Your task to perform on an android device: set an alarm Image 0: 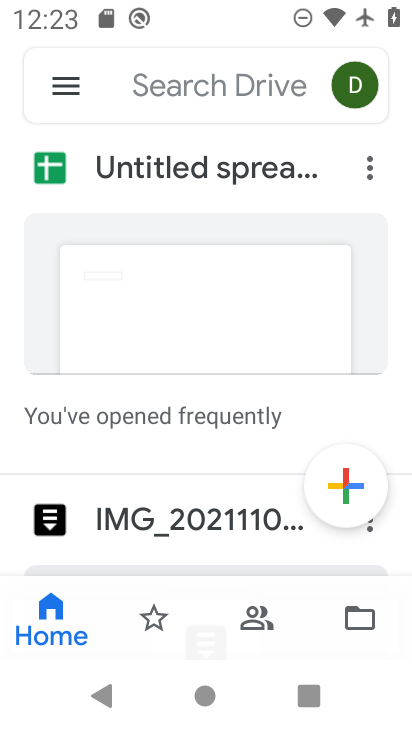
Step 0: press back button
Your task to perform on an android device: set an alarm Image 1: 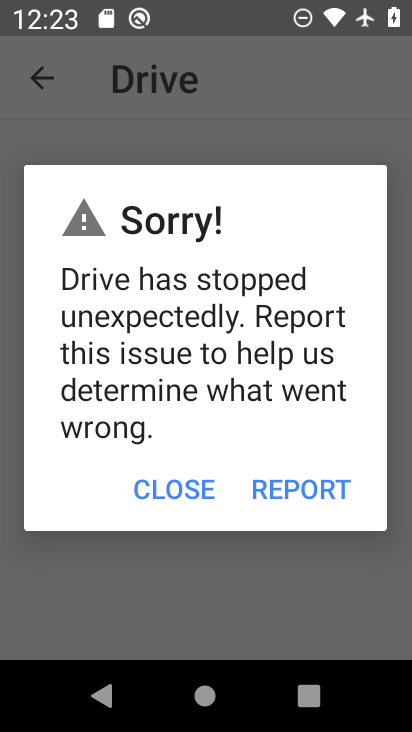
Step 1: press back button
Your task to perform on an android device: set an alarm Image 2: 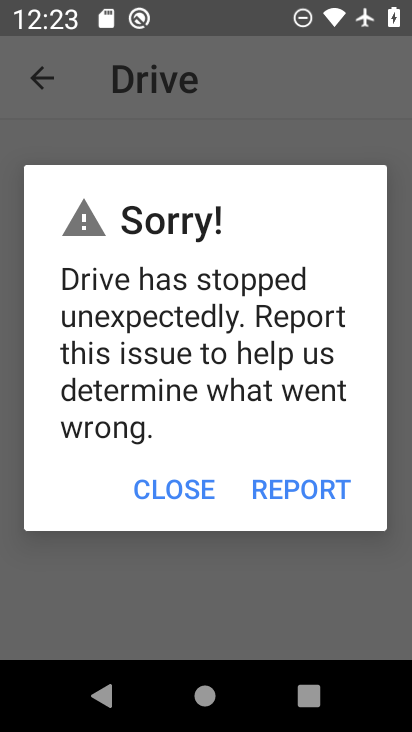
Step 2: press back button
Your task to perform on an android device: set an alarm Image 3: 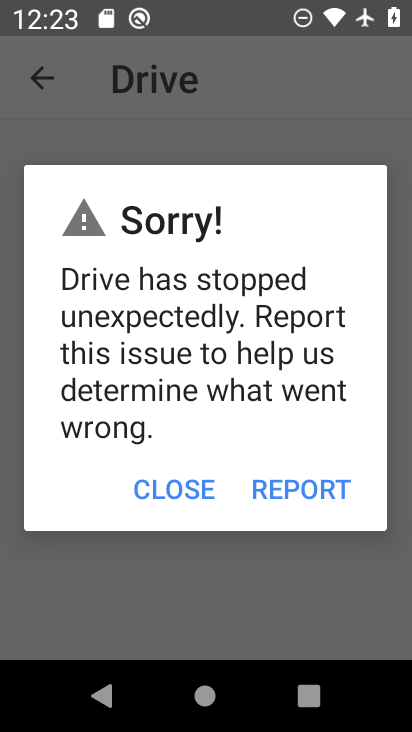
Step 3: press home button
Your task to perform on an android device: set an alarm Image 4: 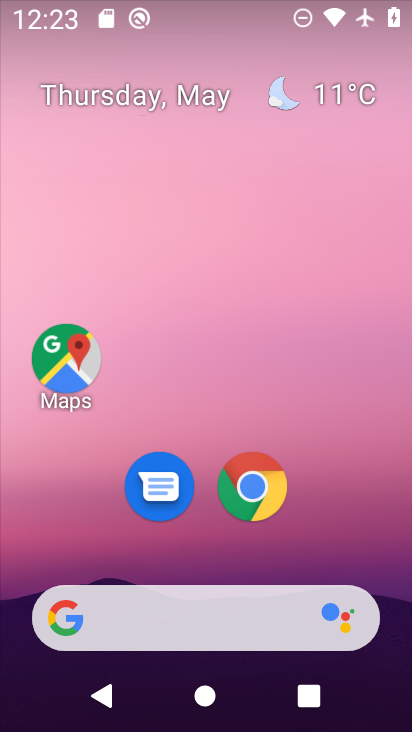
Step 4: drag from (320, 502) to (257, 78)
Your task to perform on an android device: set an alarm Image 5: 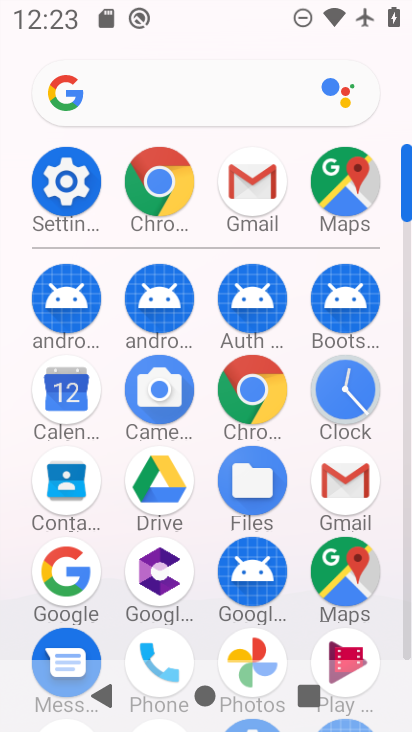
Step 5: click (347, 387)
Your task to perform on an android device: set an alarm Image 6: 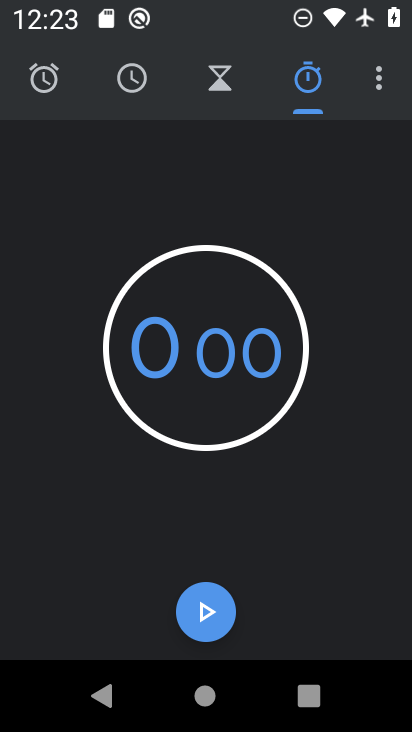
Step 6: click (51, 82)
Your task to perform on an android device: set an alarm Image 7: 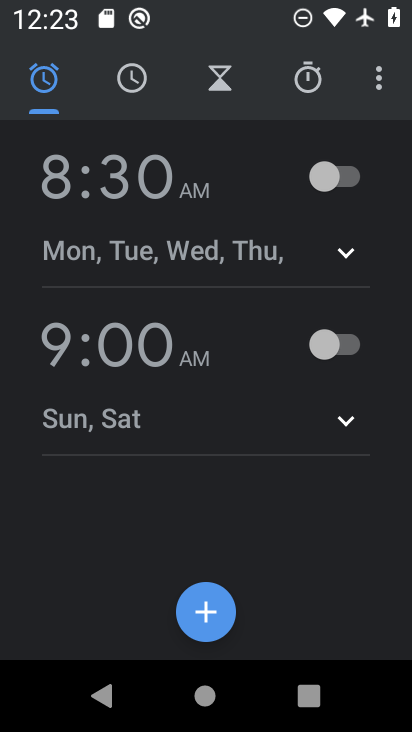
Step 7: click (215, 599)
Your task to perform on an android device: set an alarm Image 8: 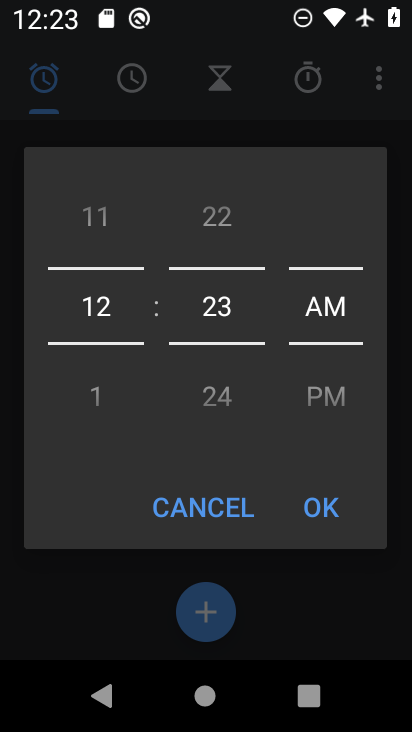
Step 8: drag from (116, 381) to (98, 148)
Your task to perform on an android device: set an alarm Image 9: 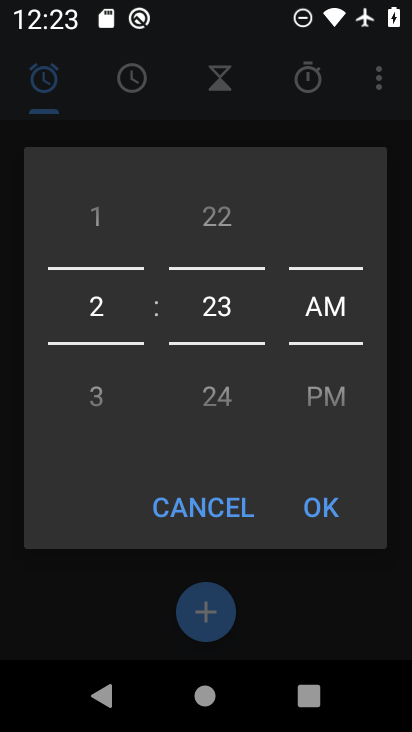
Step 9: drag from (240, 380) to (212, 176)
Your task to perform on an android device: set an alarm Image 10: 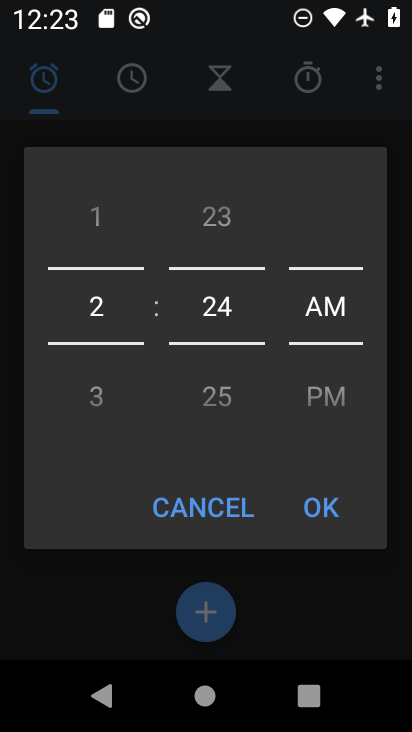
Step 10: click (305, 512)
Your task to perform on an android device: set an alarm Image 11: 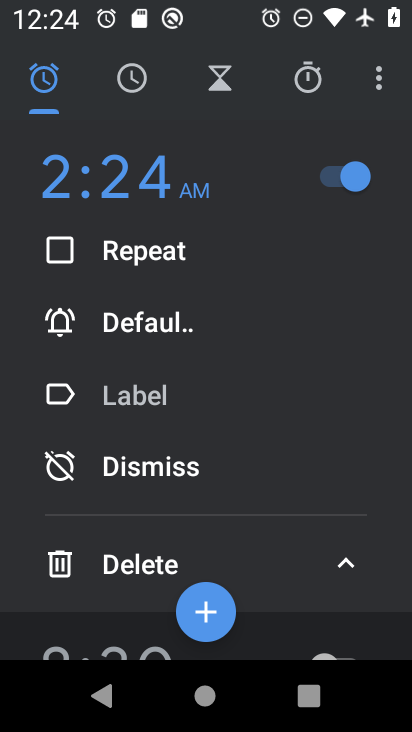
Step 11: task complete